Your task to perform on an android device: toggle airplane mode Image 0: 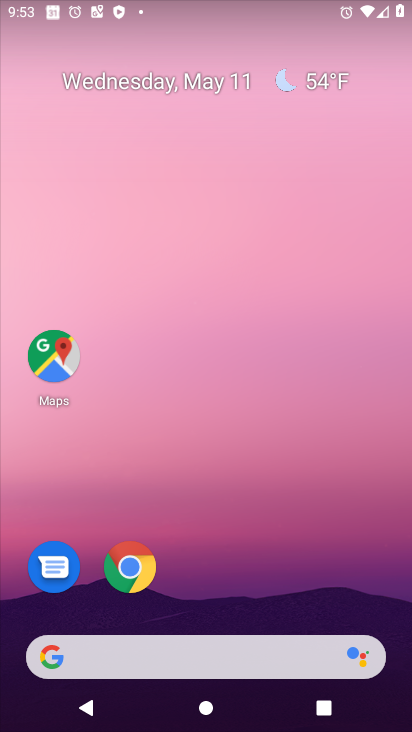
Step 0: drag from (198, 580) to (264, 38)
Your task to perform on an android device: toggle airplane mode Image 1: 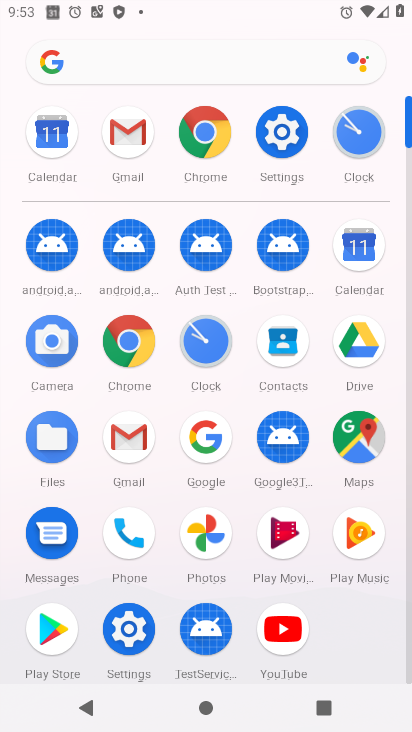
Step 1: click (276, 151)
Your task to perform on an android device: toggle airplane mode Image 2: 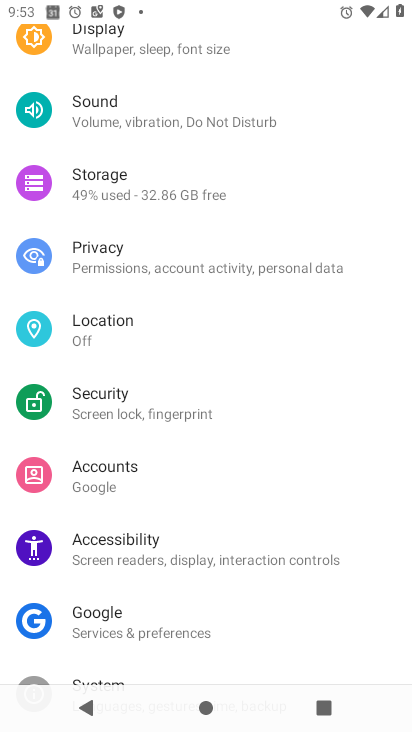
Step 2: drag from (169, 171) to (171, 525)
Your task to perform on an android device: toggle airplane mode Image 3: 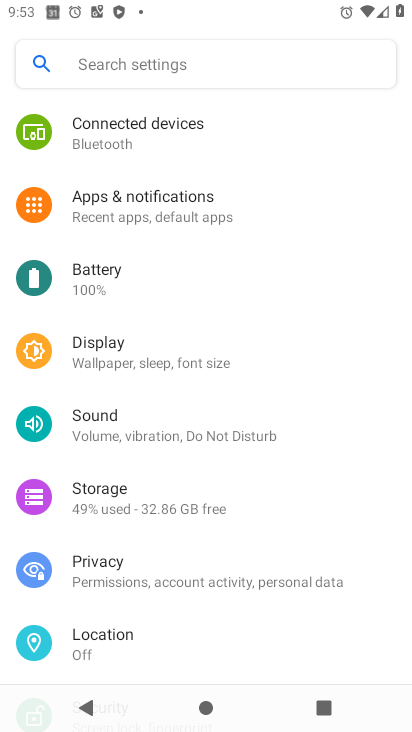
Step 3: drag from (158, 215) to (168, 676)
Your task to perform on an android device: toggle airplane mode Image 4: 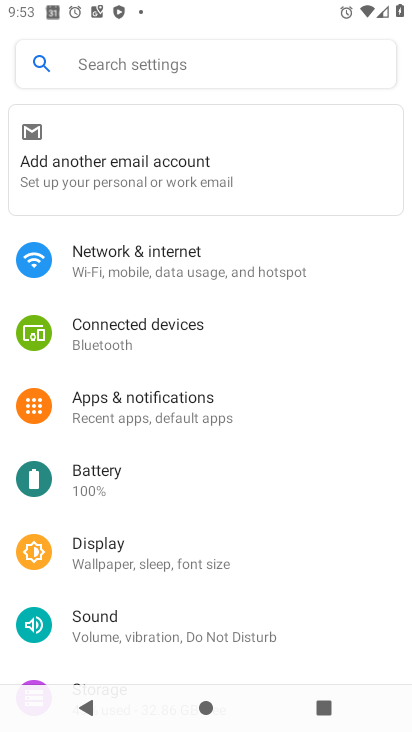
Step 4: click (187, 280)
Your task to perform on an android device: toggle airplane mode Image 5: 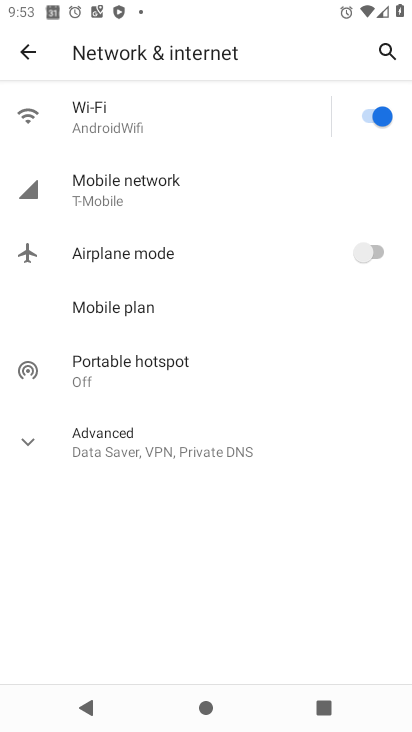
Step 5: click (330, 254)
Your task to perform on an android device: toggle airplane mode Image 6: 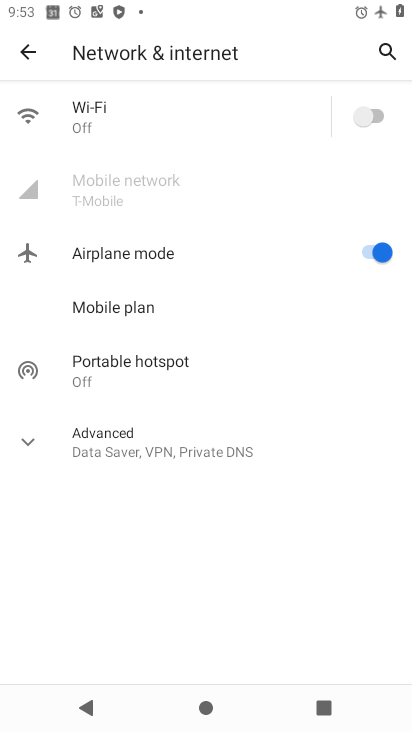
Step 6: task complete